Your task to perform on an android device: Search for "asus rog" on target.com, select the first entry, and add it to the cart. Image 0: 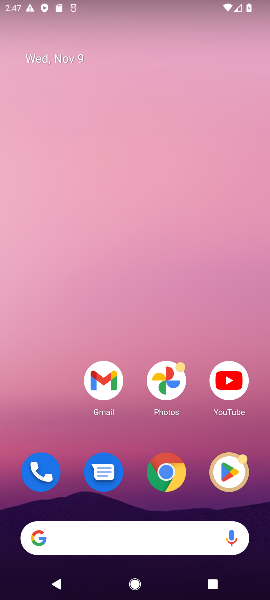
Step 0: click (104, 539)
Your task to perform on an android device: Search for "asus rog" on target.com, select the first entry, and add it to the cart. Image 1: 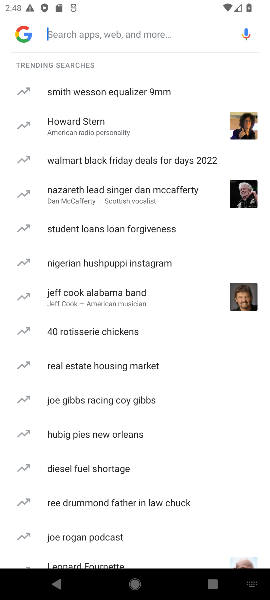
Step 1: type "target.com"
Your task to perform on an android device: Search for "asus rog" on target.com, select the first entry, and add it to the cart. Image 2: 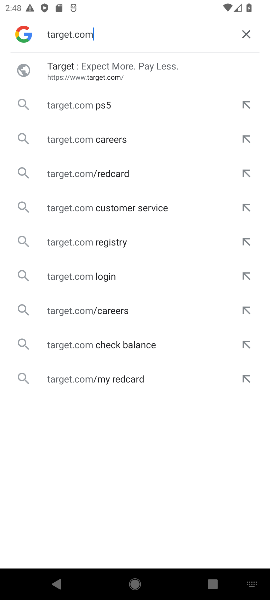
Step 2: click (48, 69)
Your task to perform on an android device: Search for "asus rog" on target.com, select the first entry, and add it to the cart. Image 3: 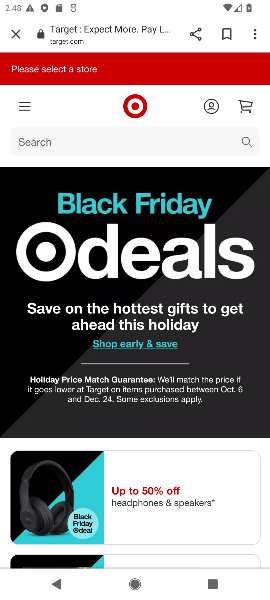
Step 3: click (81, 139)
Your task to perform on an android device: Search for "asus rog" on target.com, select the first entry, and add it to the cart. Image 4: 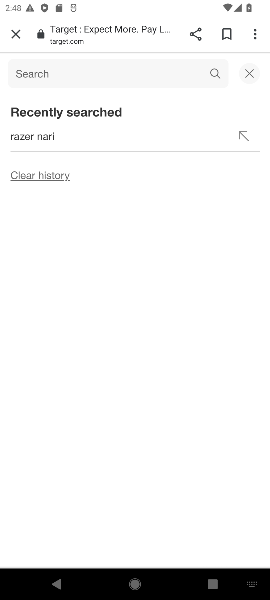
Step 4: type "asus rog"
Your task to perform on an android device: Search for "asus rog" on target.com, select the first entry, and add it to the cart. Image 5: 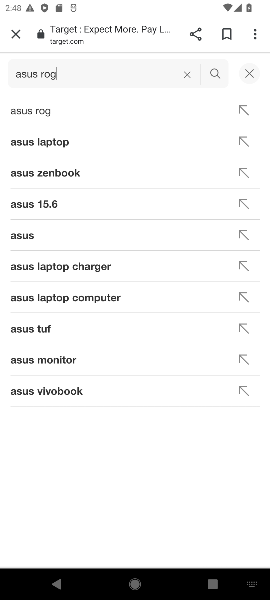
Step 5: click (35, 108)
Your task to perform on an android device: Search for "asus rog" on target.com, select the first entry, and add it to the cart. Image 6: 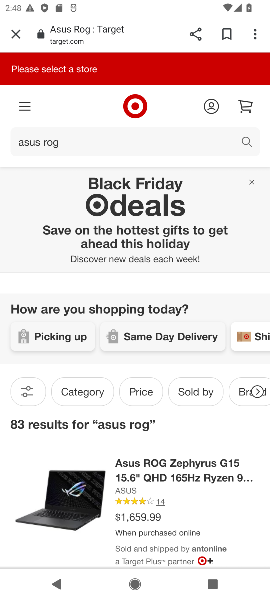
Step 6: drag from (237, 513) to (223, 391)
Your task to perform on an android device: Search for "asus rog" on target.com, select the first entry, and add it to the cart. Image 7: 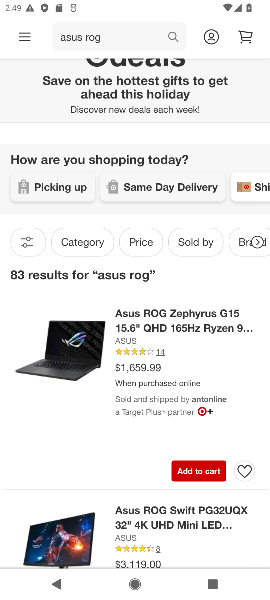
Step 7: click (198, 473)
Your task to perform on an android device: Search for "asus rog" on target.com, select the first entry, and add it to the cart. Image 8: 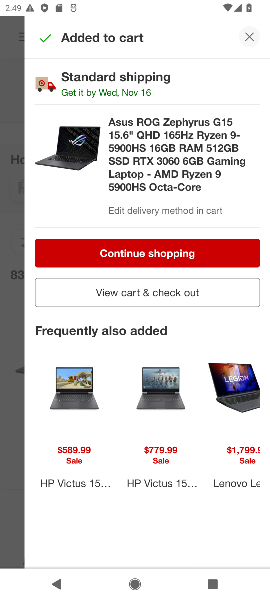
Step 8: task complete